Your task to perform on an android device: turn on the 12-hour format for clock Image 0: 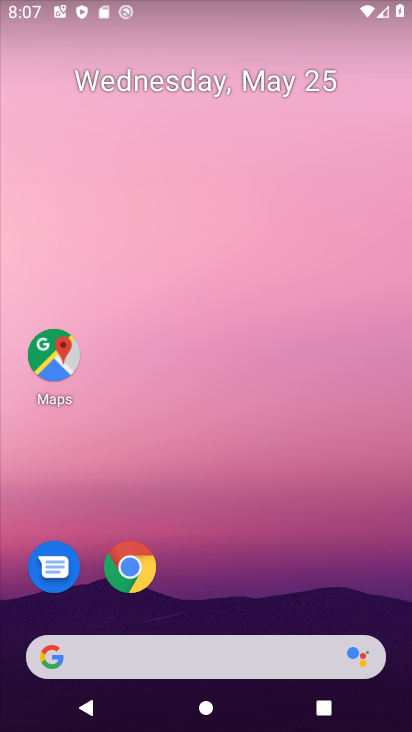
Step 0: drag from (267, 609) to (278, 101)
Your task to perform on an android device: turn on the 12-hour format for clock Image 1: 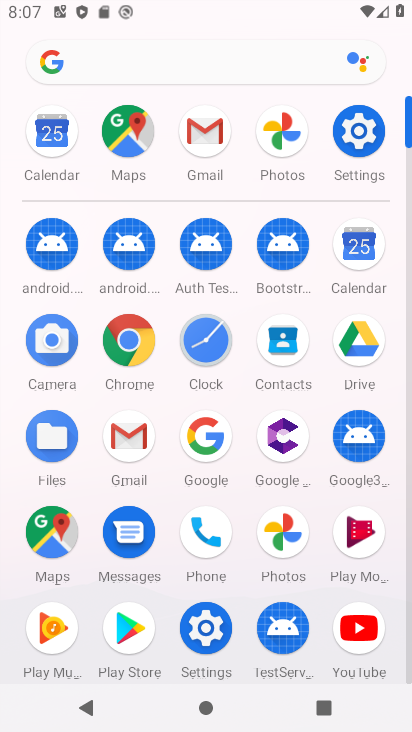
Step 1: click (354, 129)
Your task to perform on an android device: turn on the 12-hour format for clock Image 2: 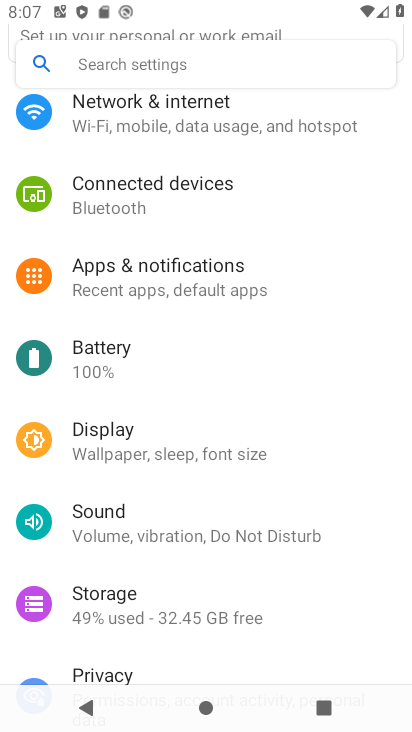
Step 2: drag from (209, 581) to (221, 244)
Your task to perform on an android device: turn on the 12-hour format for clock Image 3: 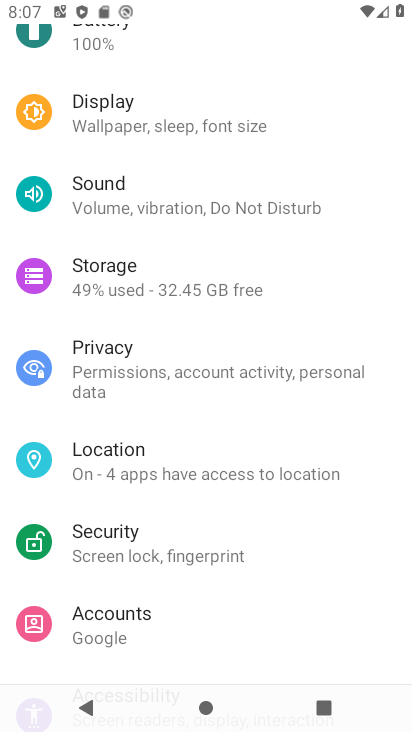
Step 3: drag from (185, 182) to (204, 583)
Your task to perform on an android device: turn on the 12-hour format for clock Image 4: 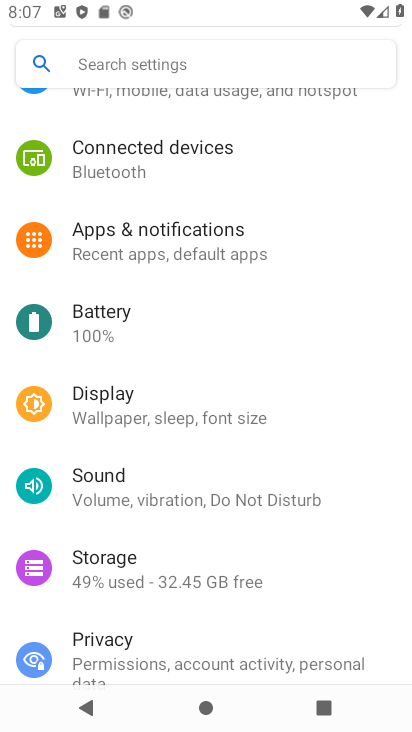
Step 4: press home button
Your task to perform on an android device: turn on the 12-hour format for clock Image 5: 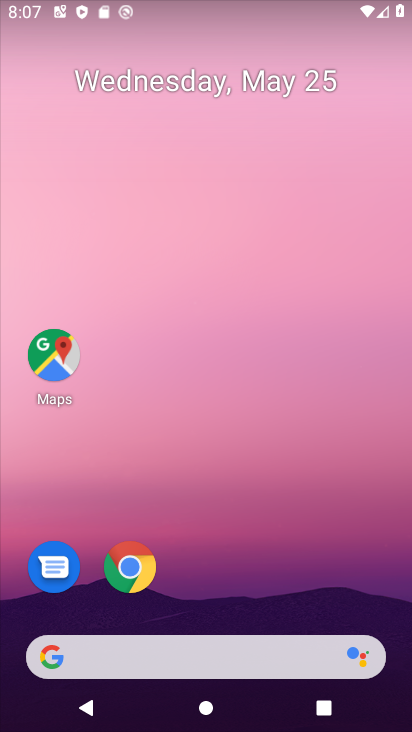
Step 5: drag from (215, 629) to (244, 206)
Your task to perform on an android device: turn on the 12-hour format for clock Image 6: 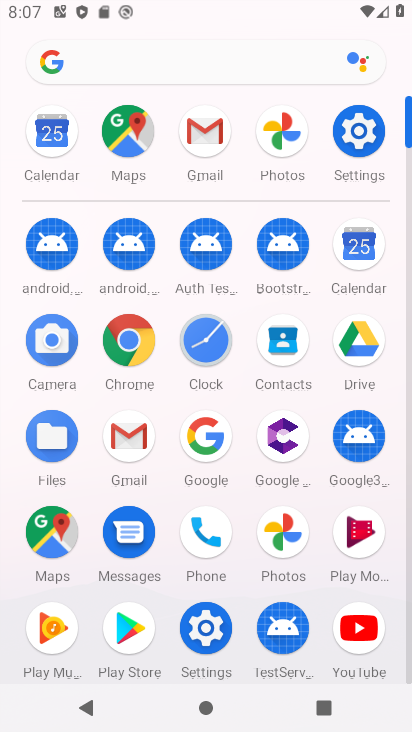
Step 6: click (201, 324)
Your task to perform on an android device: turn on the 12-hour format for clock Image 7: 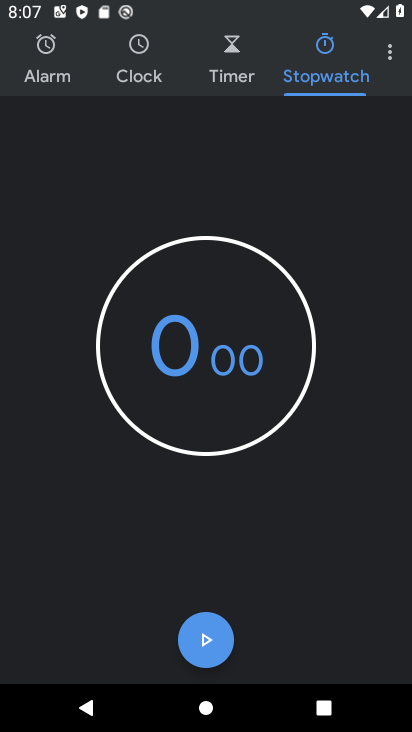
Step 7: click (396, 44)
Your task to perform on an android device: turn on the 12-hour format for clock Image 8: 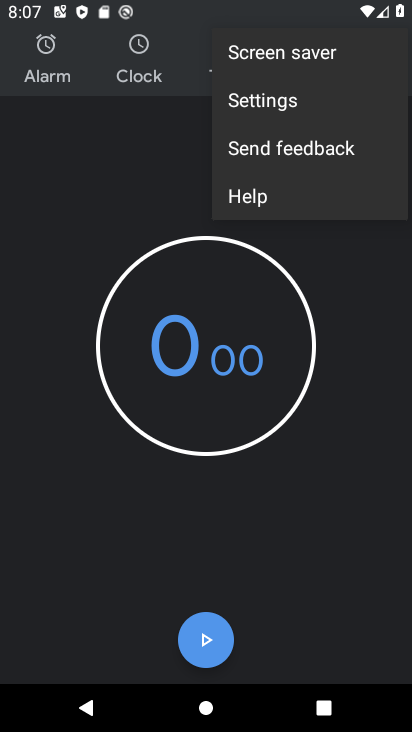
Step 8: click (280, 97)
Your task to perform on an android device: turn on the 12-hour format for clock Image 9: 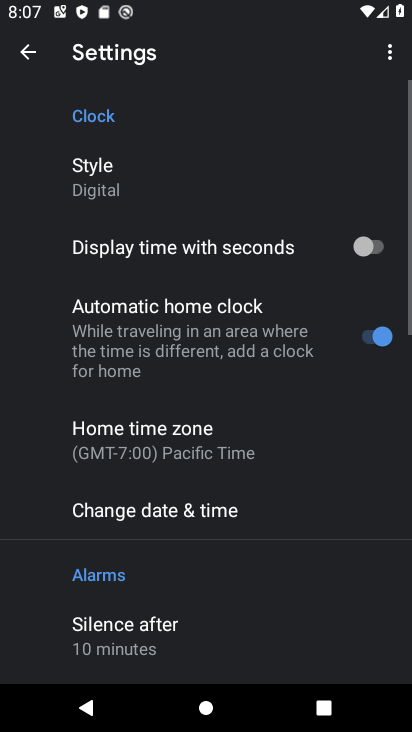
Step 9: click (123, 534)
Your task to perform on an android device: turn on the 12-hour format for clock Image 10: 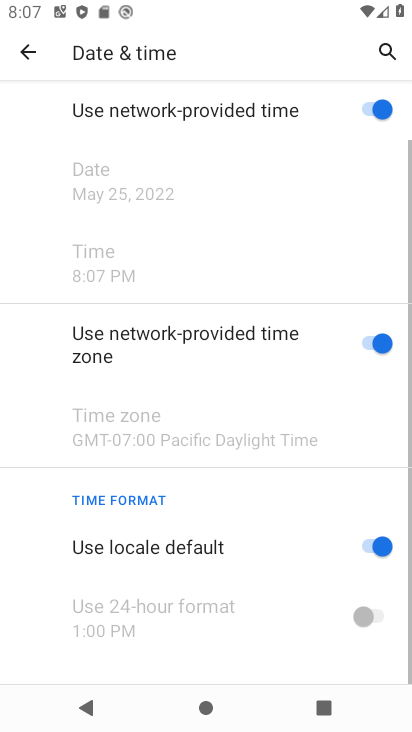
Step 10: task complete